Your task to perform on an android device: delete browsing data in the chrome app Image 0: 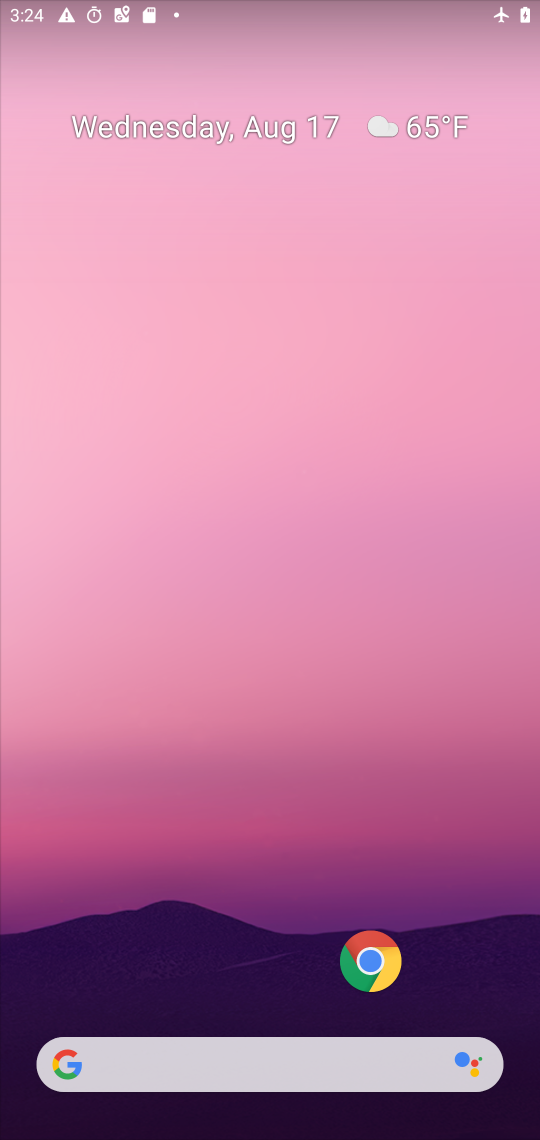
Step 0: drag from (279, 964) to (315, 278)
Your task to perform on an android device: delete browsing data in the chrome app Image 1: 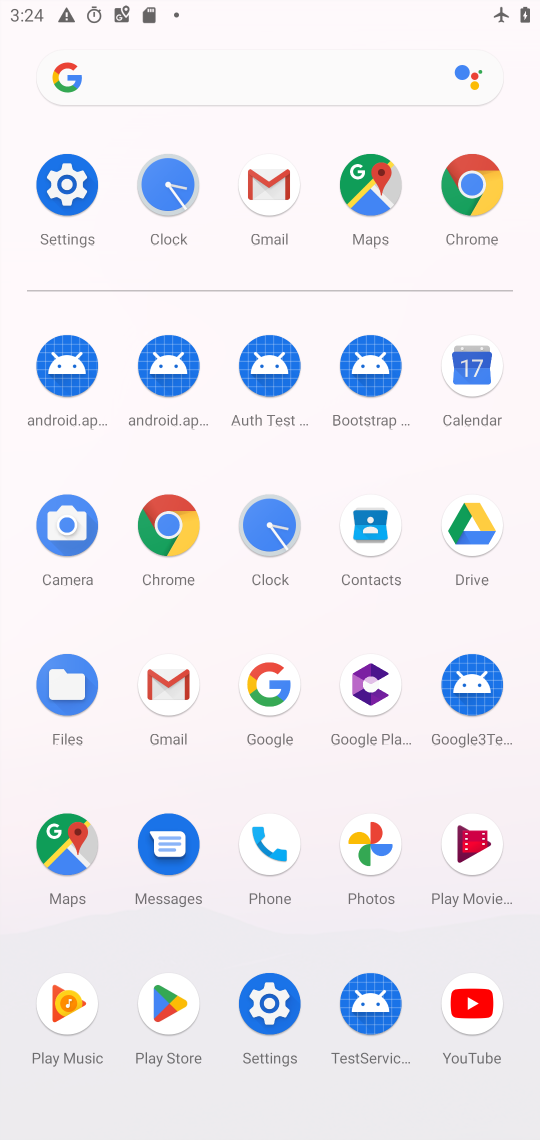
Step 1: click (185, 557)
Your task to perform on an android device: delete browsing data in the chrome app Image 2: 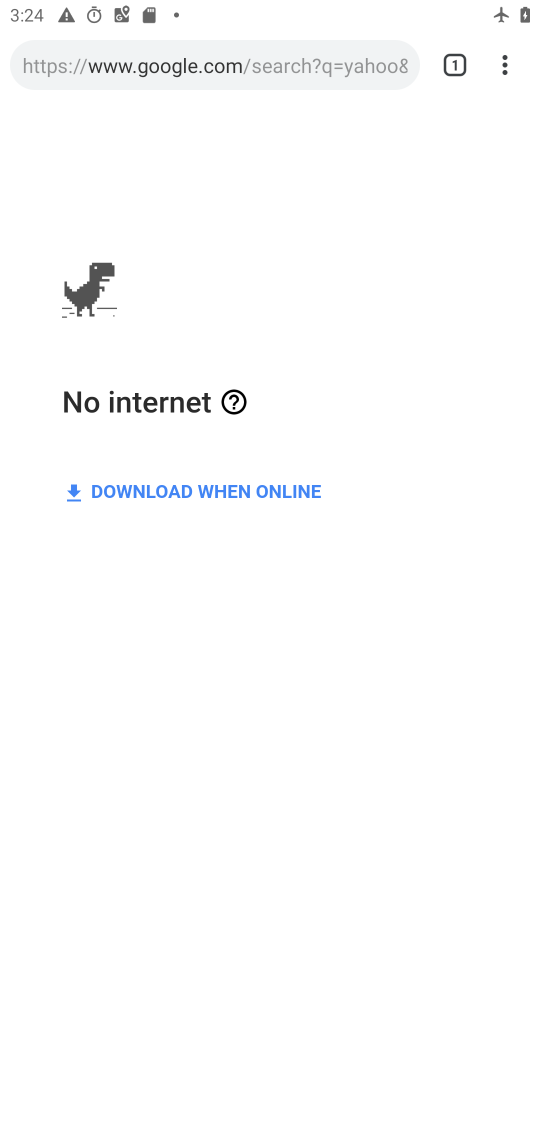
Step 2: click (509, 61)
Your task to perform on an android device: delete browsing data in the chrome app Image 3: 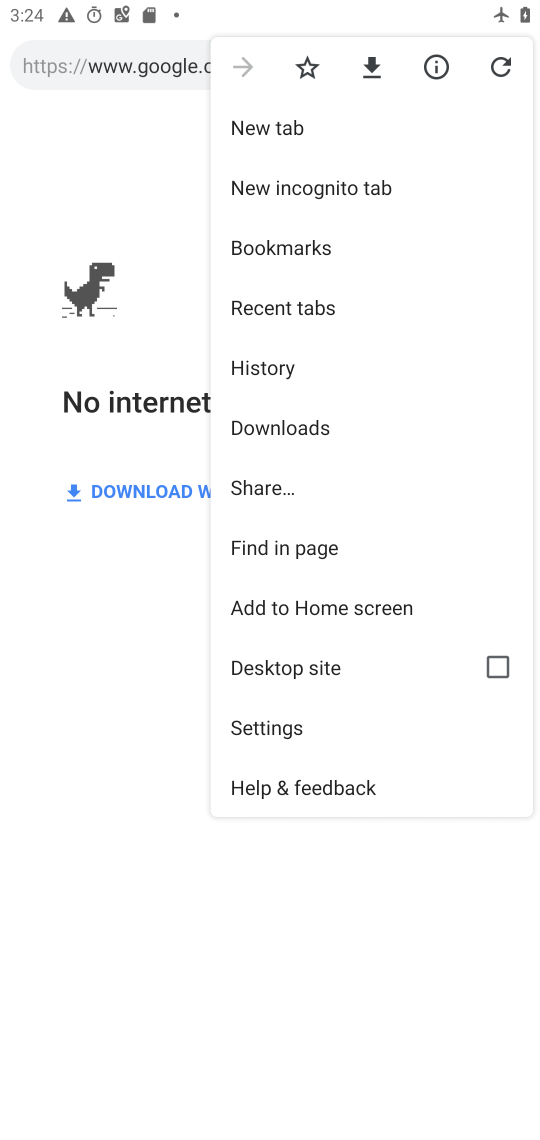
Step 3: click (284, 362)
Your task to perform on an android device: delete browsing data in the chrome app Image 4: 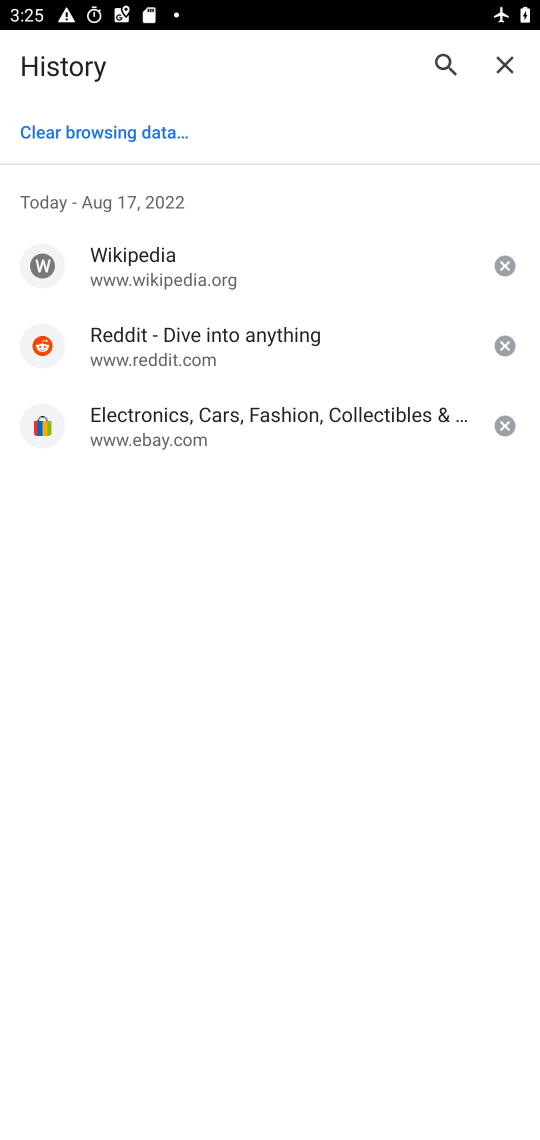
Step 4: click (79, 149)
Your task to perform on an android device: delete browsing data in the chrome app Image 5: 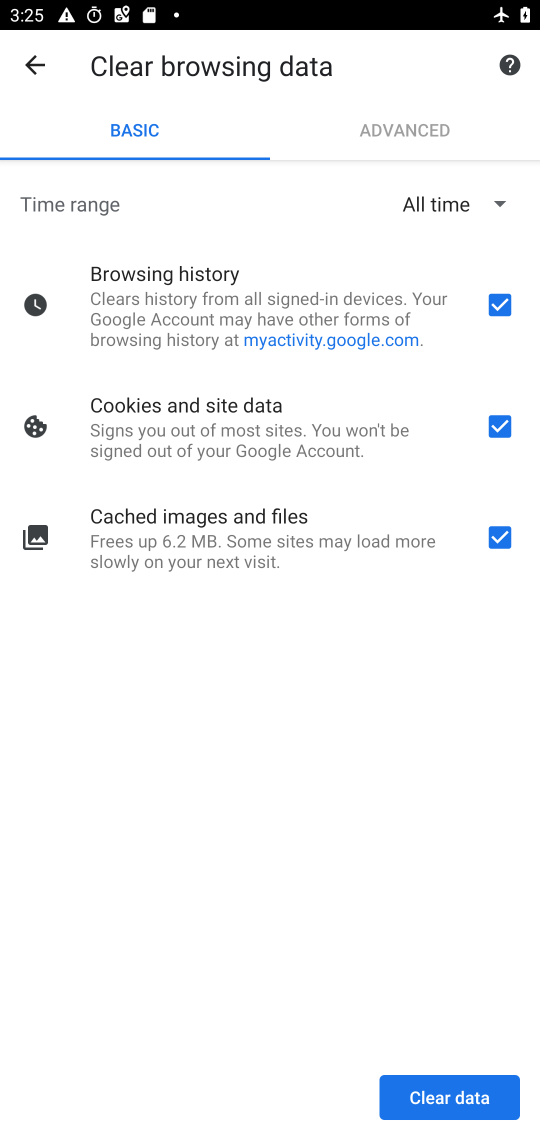
Step 5: click (509, 540)
Your task to perform on an android device: delete browsing data in the chrome app Image 6: 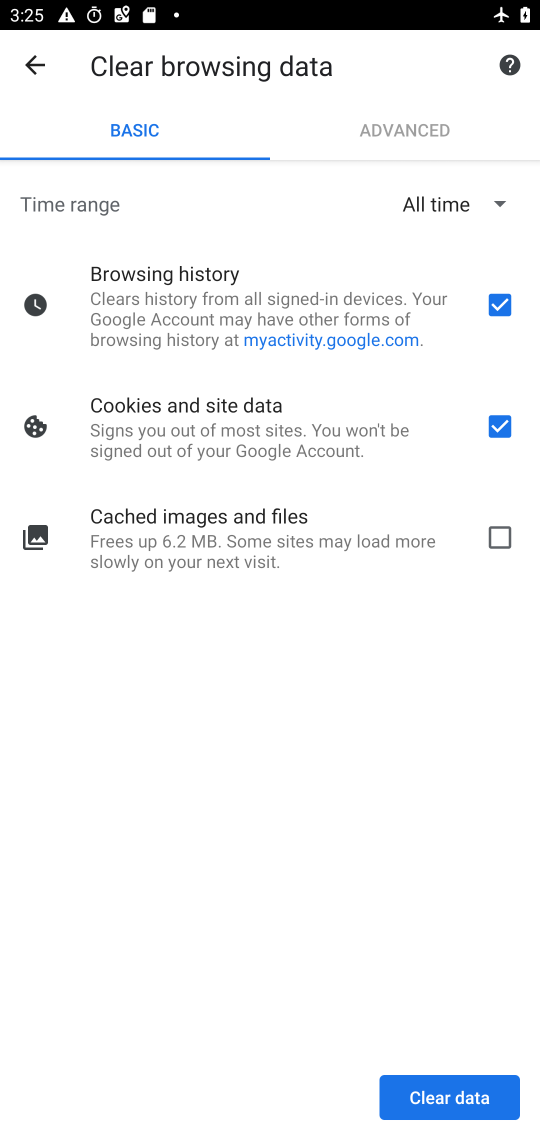
Step 6: click (499, 426)
Your task to perform on an android device: delete browsing data in the chrome app Image 7: 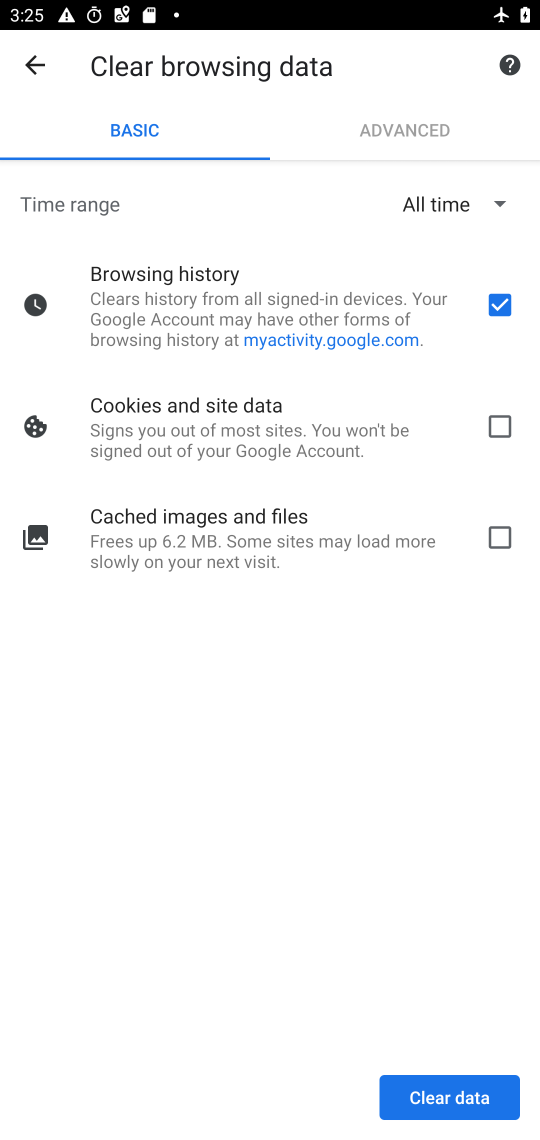
Step 7: click (437, 1105)
Your task to perform on an android device: delete browsing data in the chrome app Image 8: 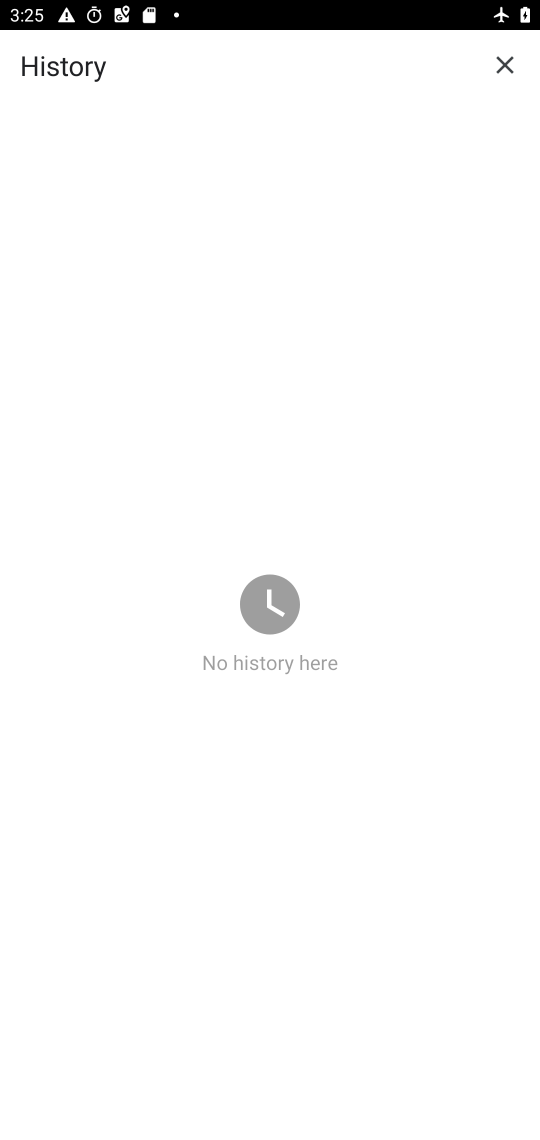
Step 8: task complete